Your task to perform on an android device: turn on airplane mode Image 0: 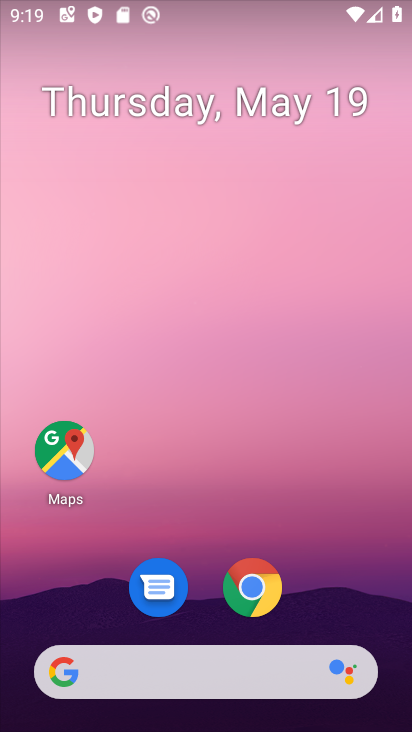
Step 0: drag from (240, 682) to (288, 36)
Your task to perform on an android device: turn on airplane mode Image 1: 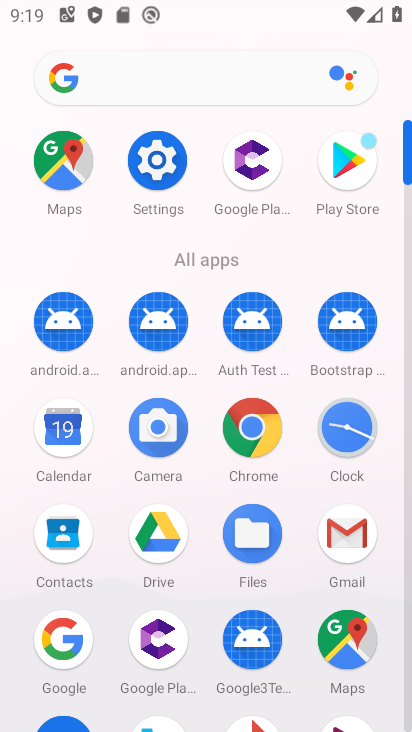
Step 1: click (181, 169)
Your task to perform on an android device: turn on airplane mode Image 2: 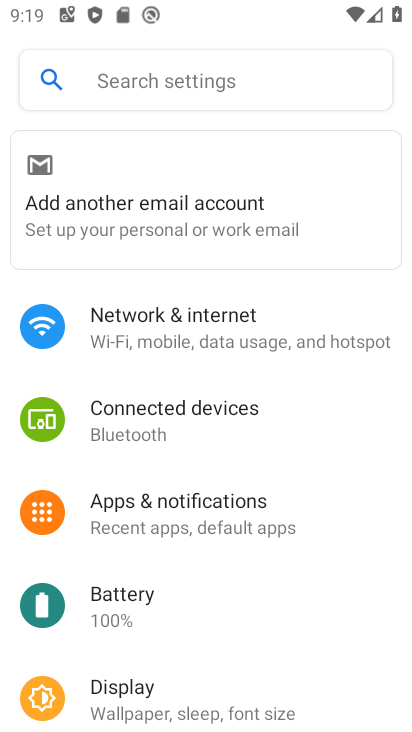
Step 2: click (147, 337)
Your task to perform on an android device: turn on airplane mode Image 3: 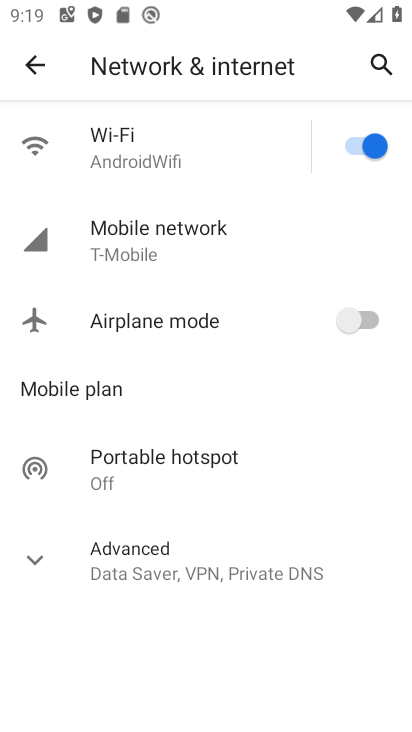
Step 3: click (355, 318)
Your task to perform on an android device: turn on airplane mode Image 4: 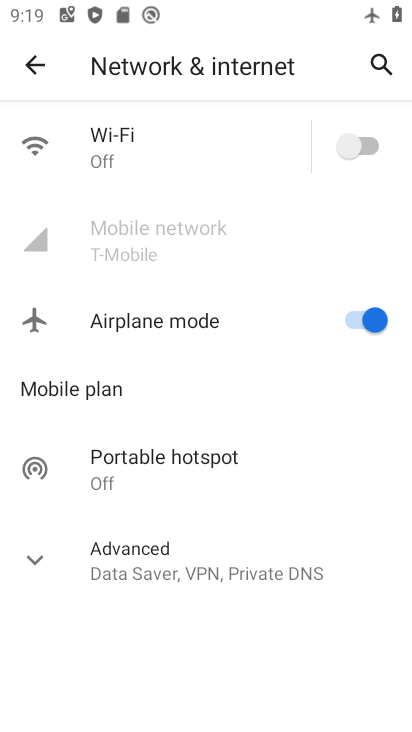
Step 4: task complete